Your task to perform on an android device: turn off location Image 0: 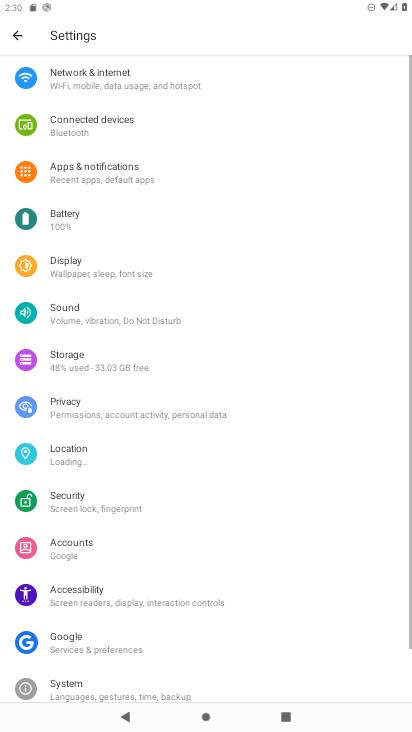
Step 0: press home button
Your task to perform on an android device: turn off location Image 1: 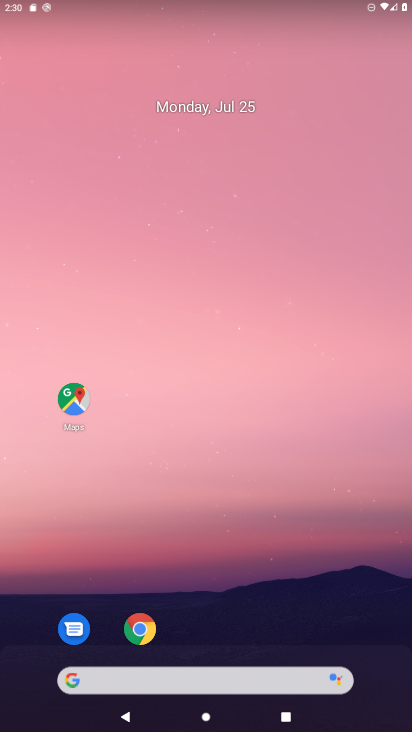
Step 1: drag from (260, 514) to (244, 22)
Your task to perform on an android device: turn off location Image 2: 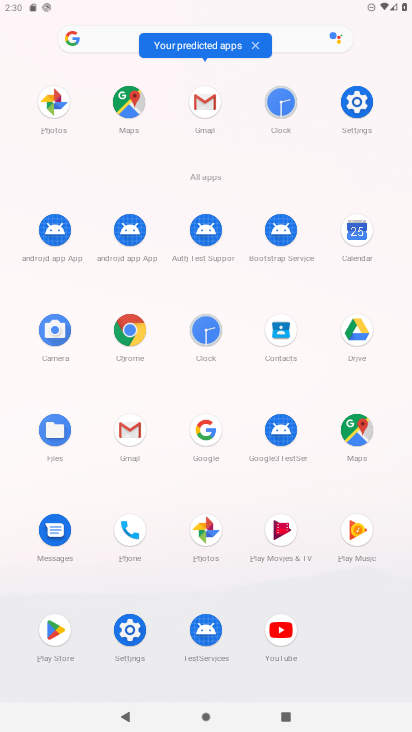
Step 2: click (130, 627)
Your task to perform on an android device: turn off location Image 3: 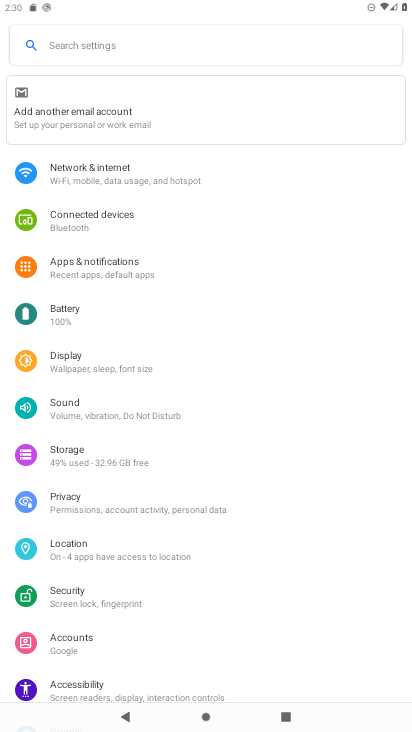
Step 3: drag from (90, 555) to (137, 197)
Your task to perform on an android device: turn off location Image 4: 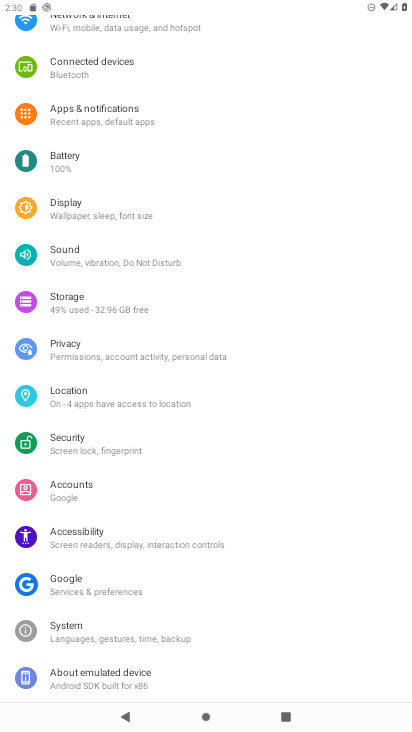
Step 4: click (71, 388)
Your task to perform on an android device: turn off location Image 5: 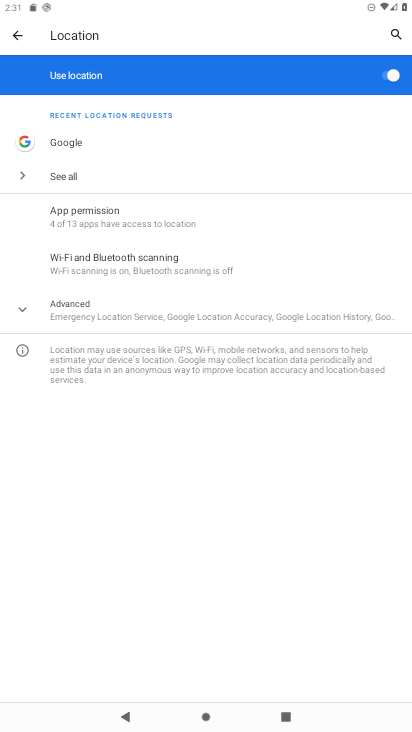
Step 5: click (181, 73)
Your task to perform on an android device: turn off location Image 6: 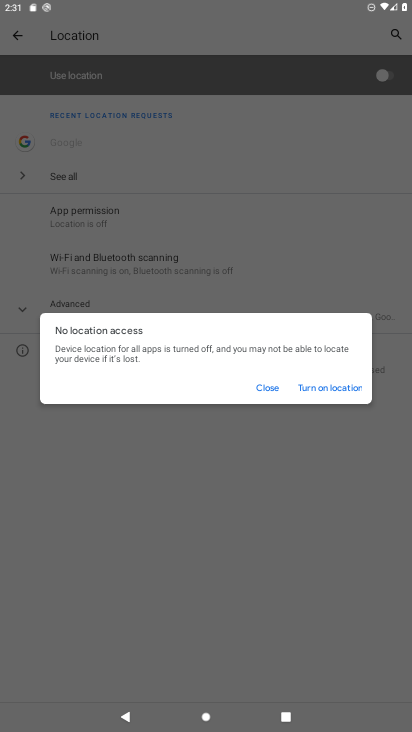
Step 6: click (258, 385)
Your task to perform on an android device: turn off location Image 7: 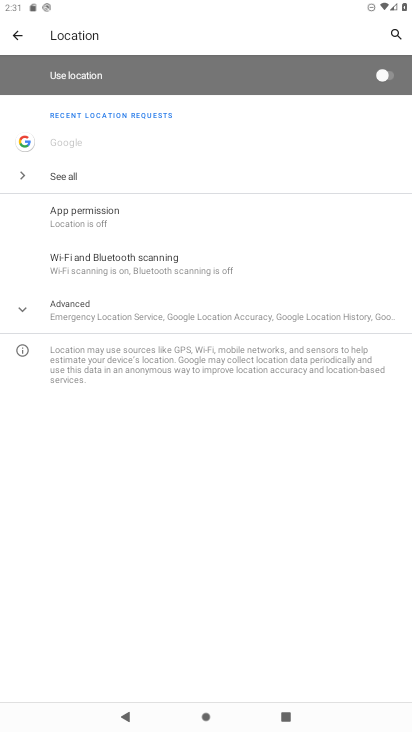
Step 7: task complete